Your task to perform on an android device: change the clock display to show seconds Image 0: 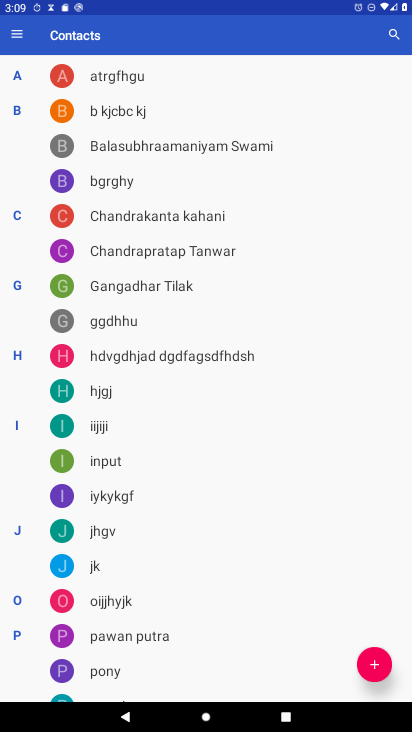
Step 0: press home button
Your task to perform on an android device: change the clock display to show seconds Image 1: 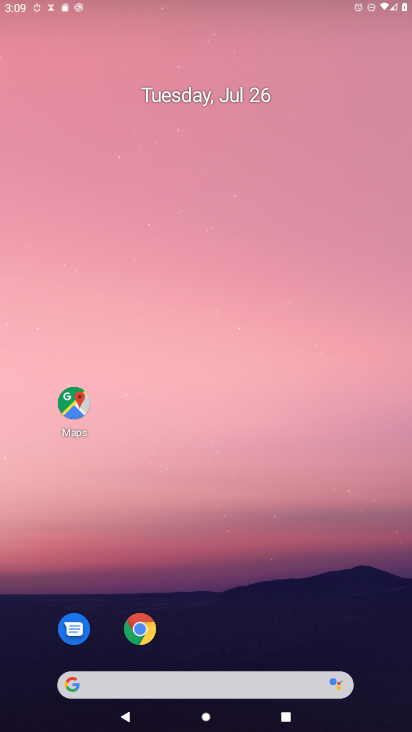
Step 1: drag from (249, 682) to (383, 148)
Your task to perform on an android device: change the clock display to show seconds Image 2: 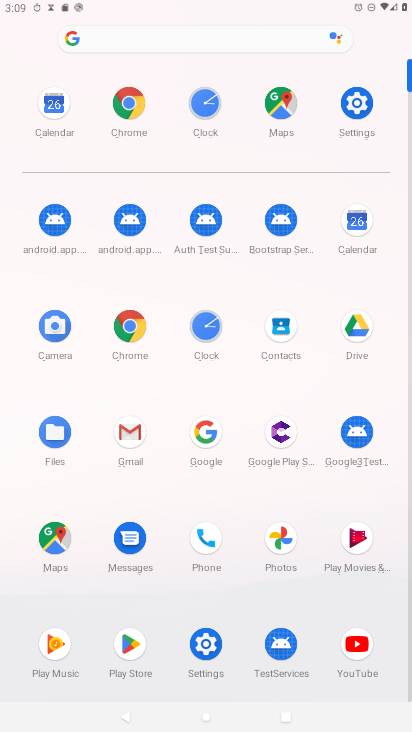
Step 2: click (199, 322)
Your task to perform on an android device: change the clock display to show seconds Image 3: 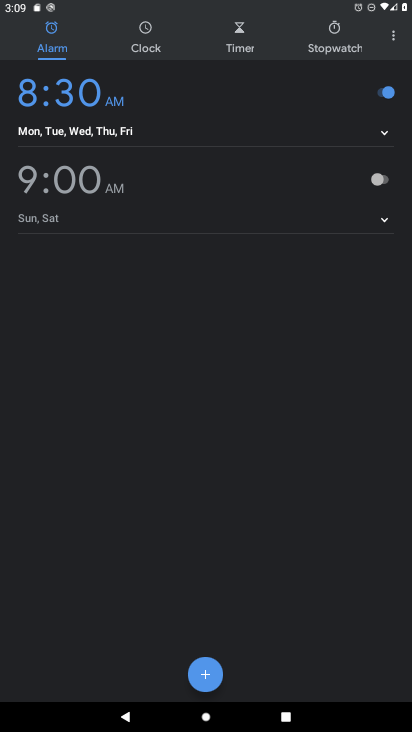
Step 3: click (391, 35)
Your task to perform on an android device: change the clock display to show seconds Image 4: 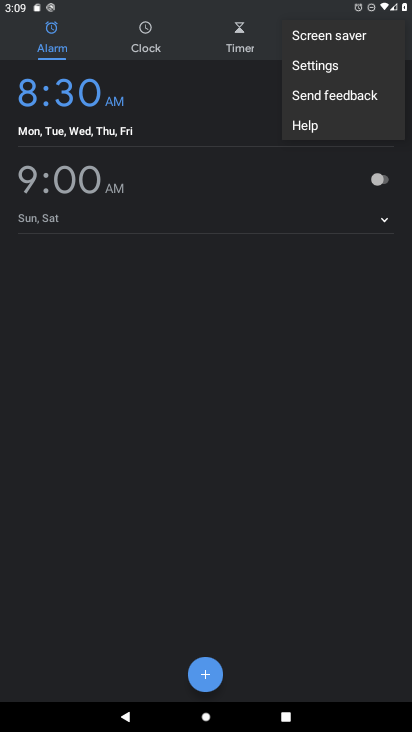
Step 4: click (324, 70)
Your task to perform on an android device: change the clock display to show seconds Image 5: 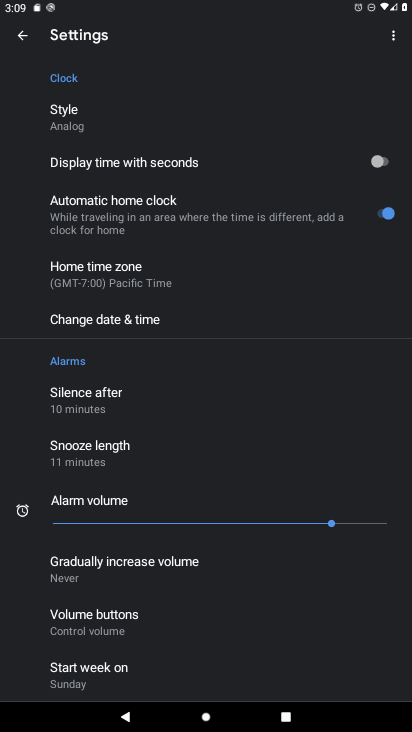
Step 5: click (391, 167)
Your task to perform on an android device: change the clock display to show seconds Image 6: 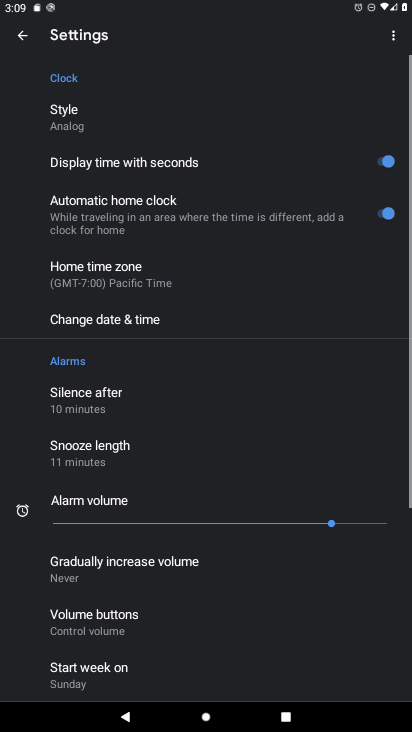
Step 6: task complete